Your task to perform on an android device: What is the news today? Image 0: 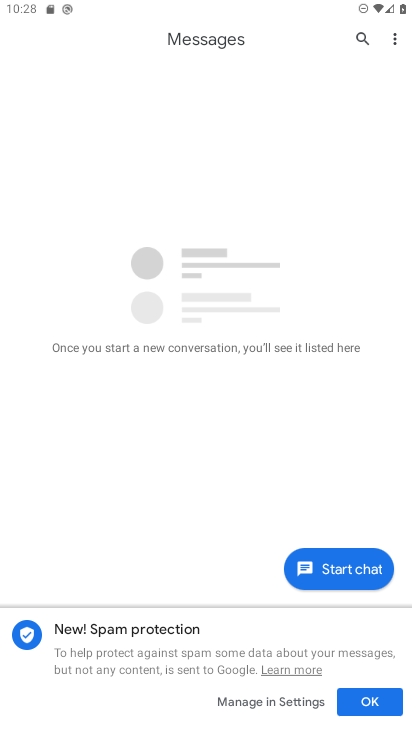
Step 0: press back button
Your task to perform on an android device: What is the news today? Image 1: 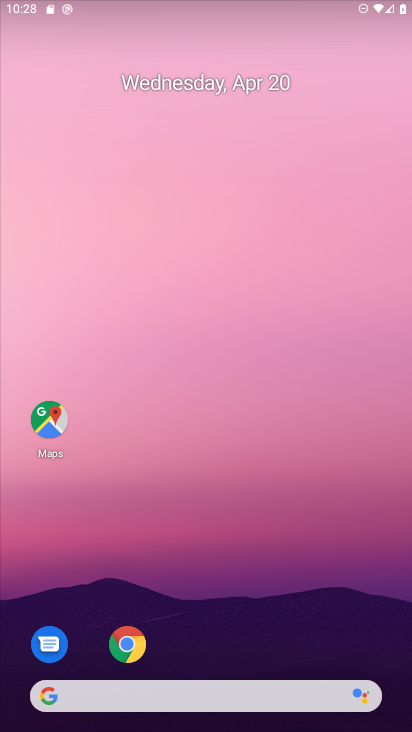
Step 1: drag from (330, 620) to (298, 2)
Your task to perform on an android device: What is the news today? Image 2: 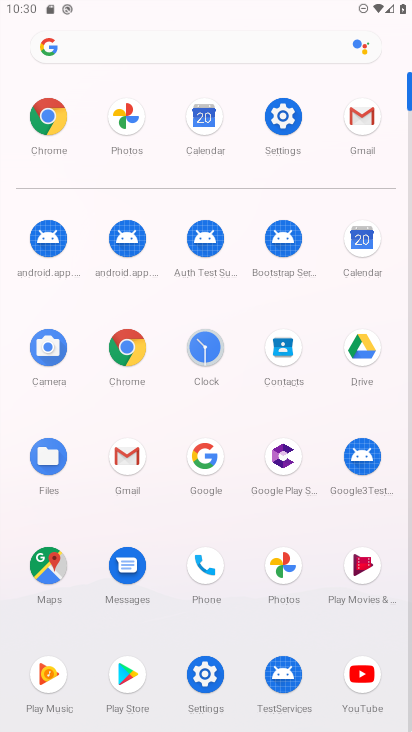
Step 2: click (134, 352)
Your task to perform on an android device: What is the news today? Image 3: 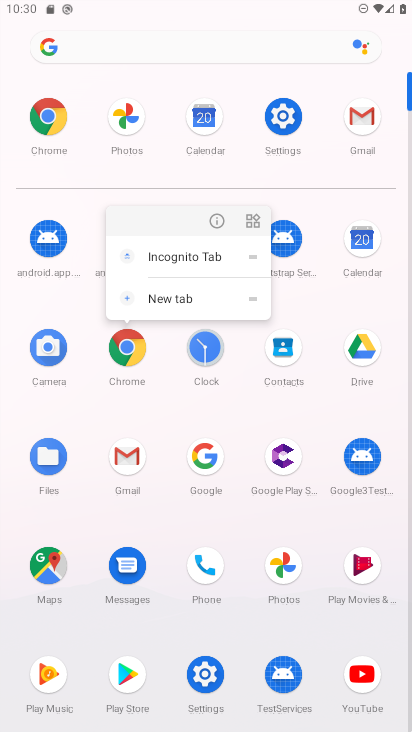
Step 3: click (134, 352)
Your task to perform on an android device: What is the news today? Image 4: 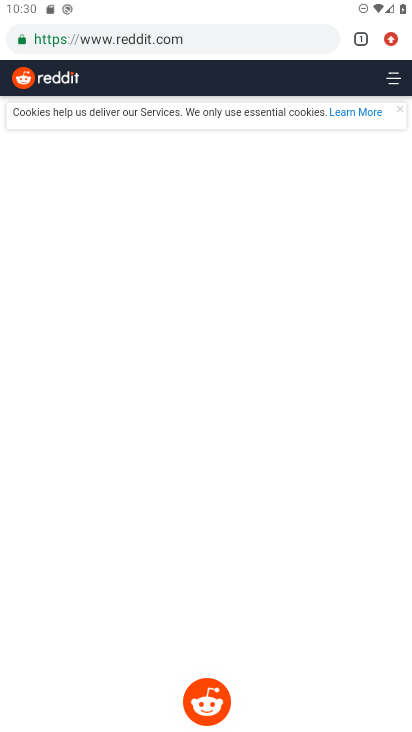
Step 4: press back button
Your task to perform on an android device: What is the news today? Image 5: 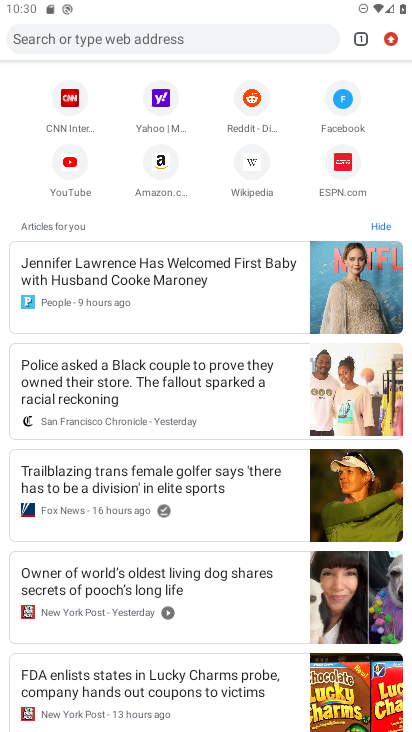
Step 5: click (153, 291)
Your task to perform on an android device: What is the news today? Image 6: 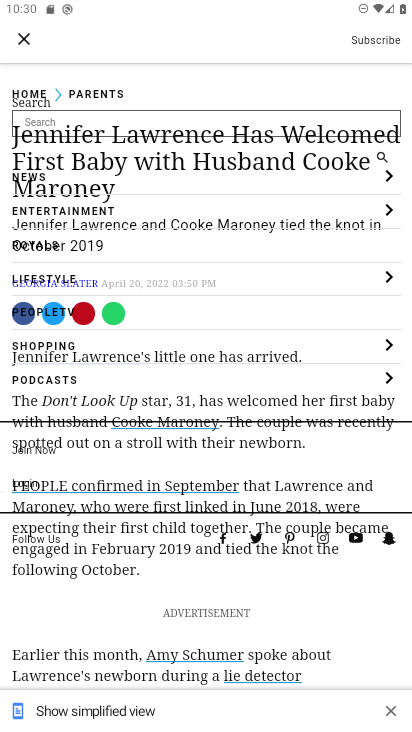
Step 6: task complete